Your task to perform on an android device: open app "Skype" Image 0: 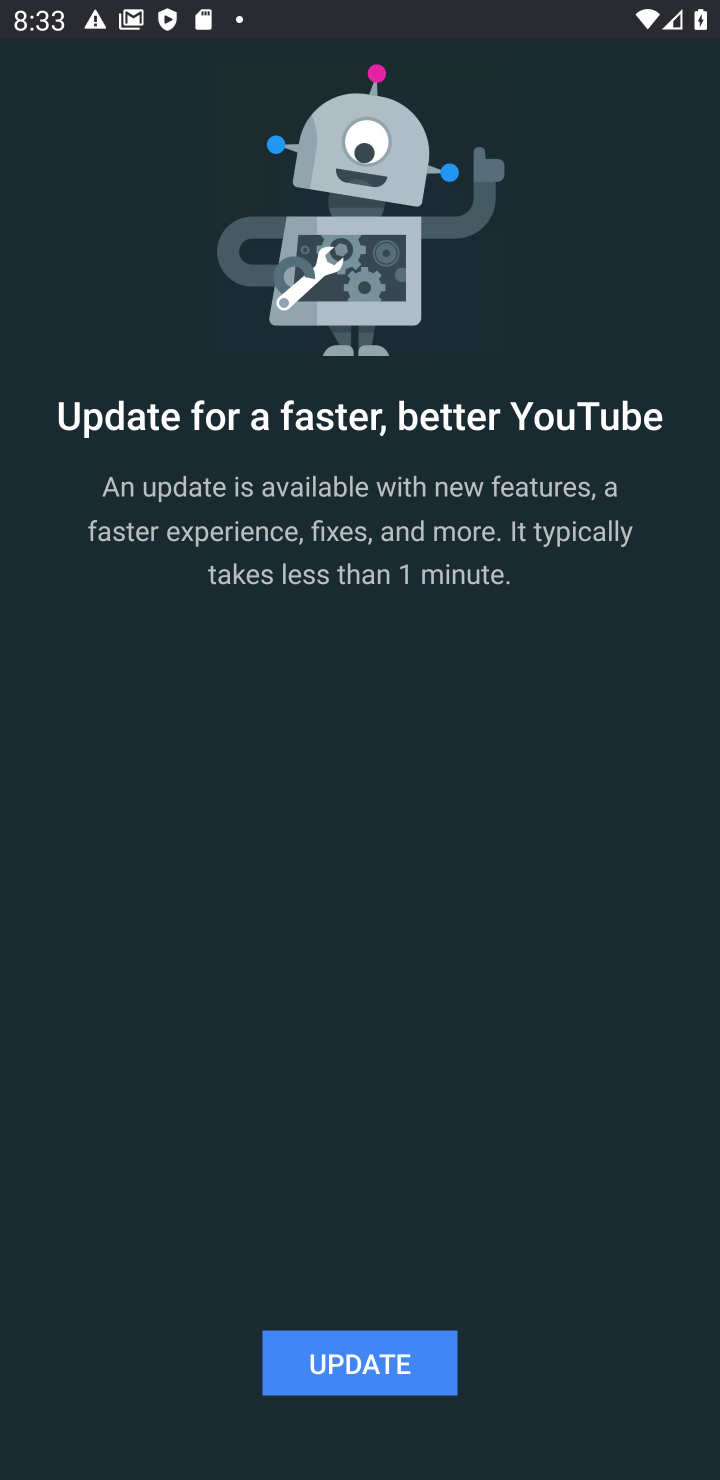
Step 0: press home button
Your task to perform on an android device: open app "Skype" Image 1: 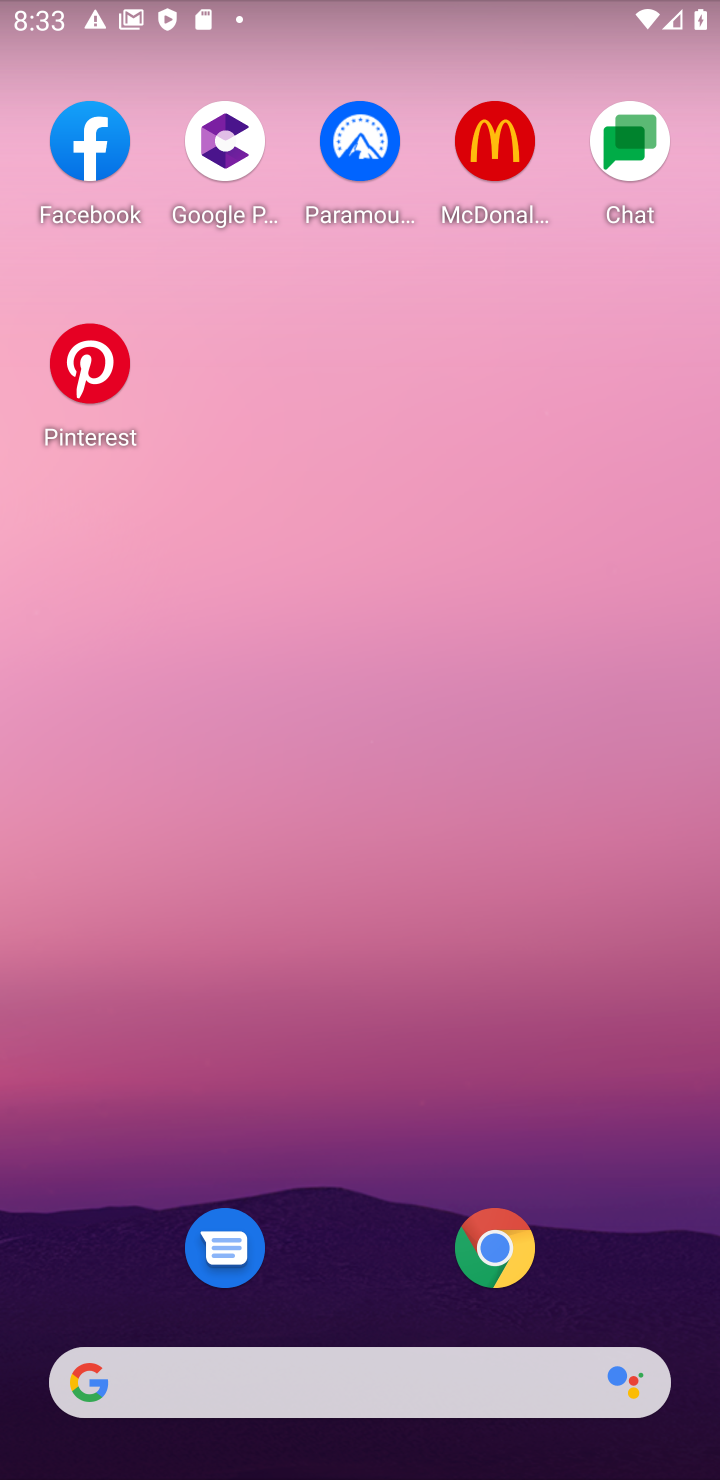
Step 1: drag from (338, 912) to (338, 218)
Your task to perform on an android device: open app "Skype" Image 2: 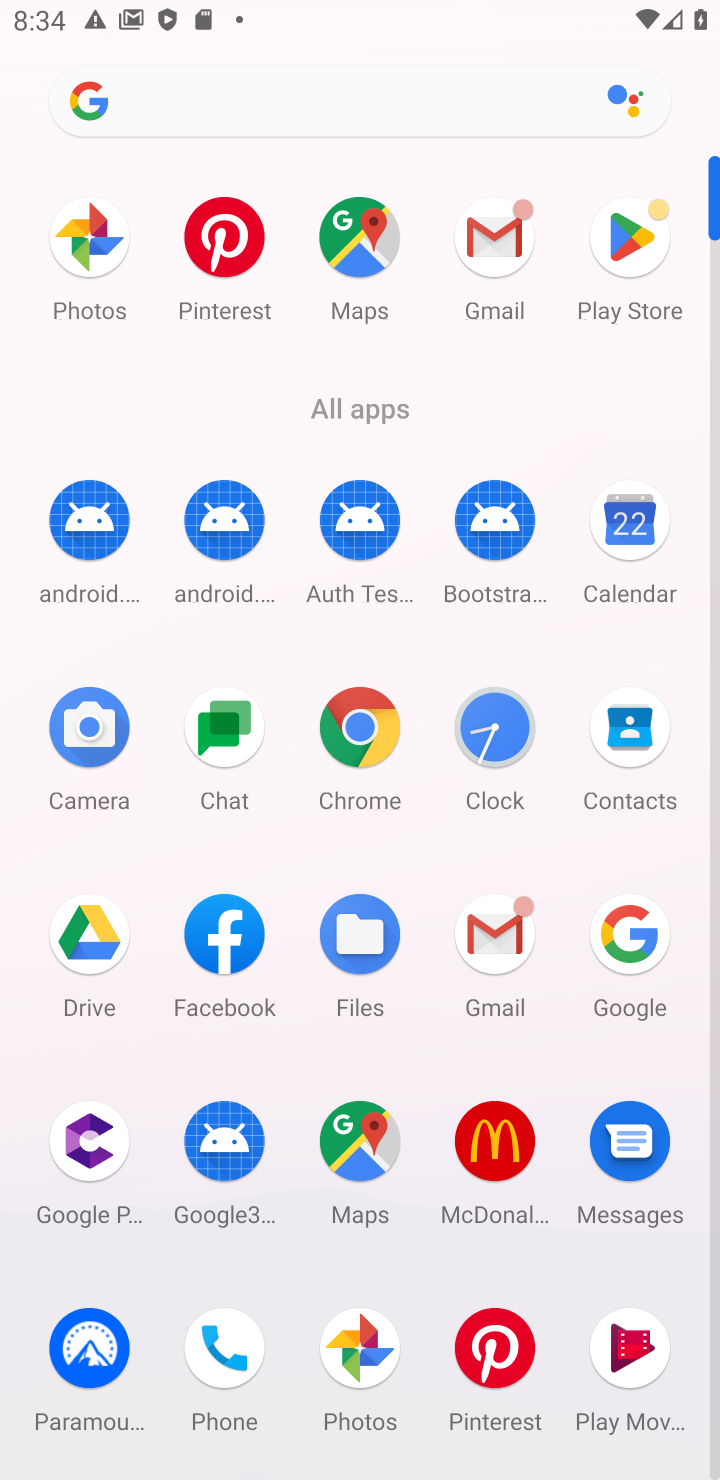
Step 2: click (634, 231)
Your task to perform on an android device: open app "Skype" Image 3: 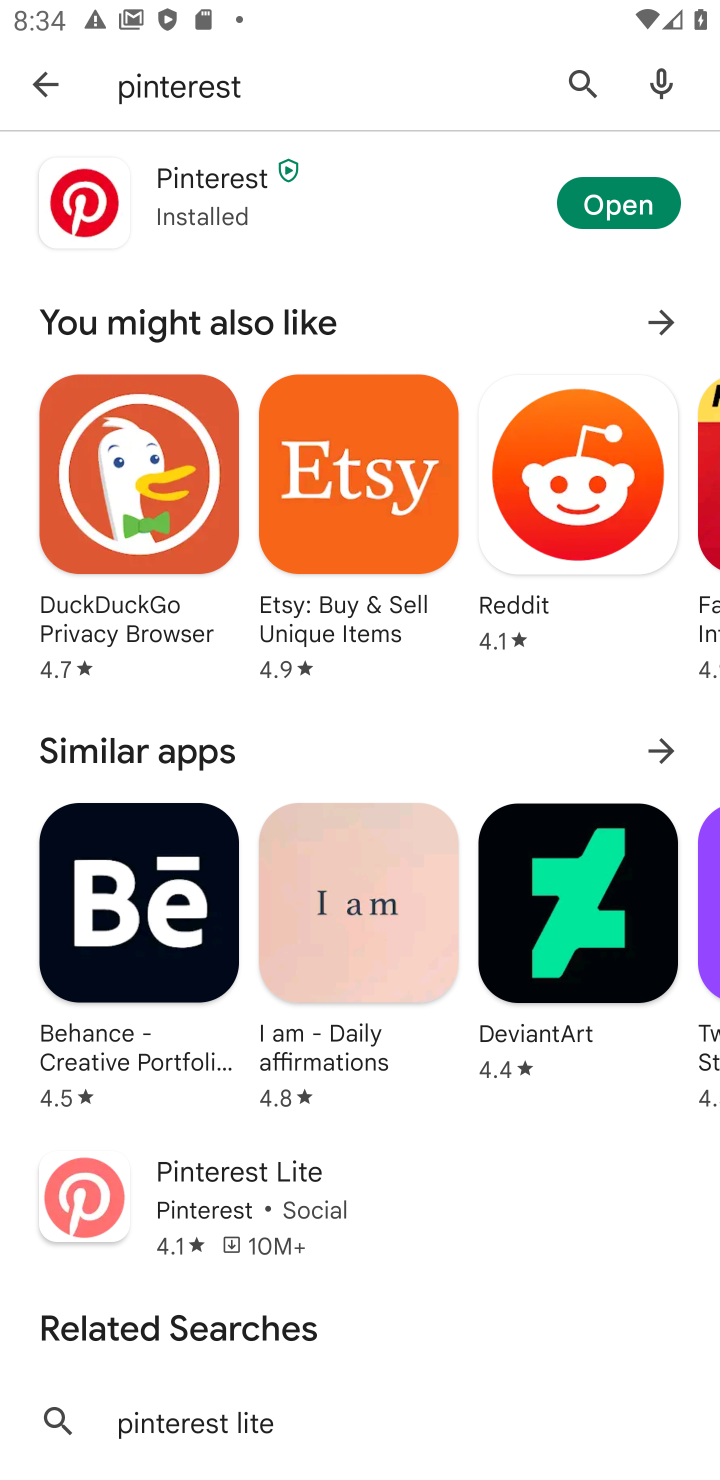
Step 3: click (580, 82)
Your task to perform on an android device: open app "Skype" Image 4: 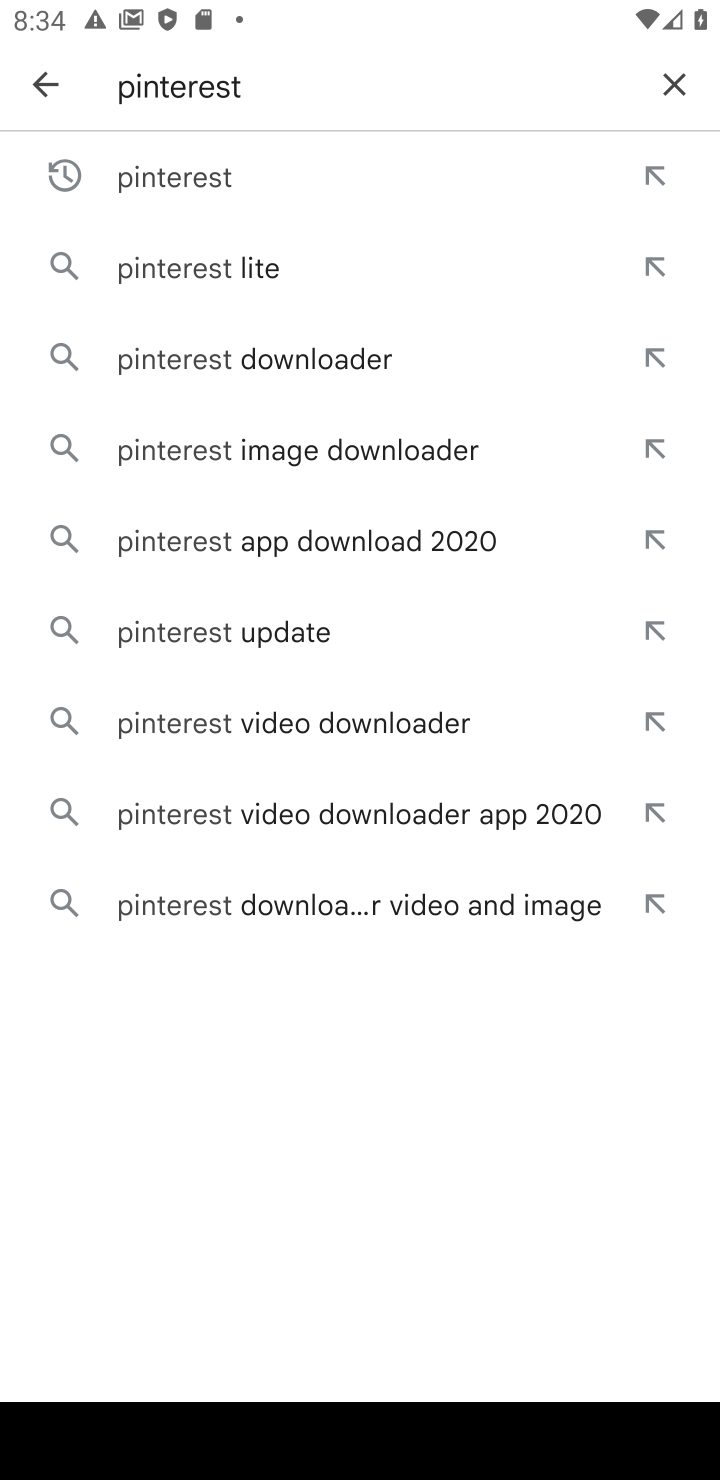
Step 4: click (673, 79)
Your task to perform on an android device: open app "Skype" Image 5: 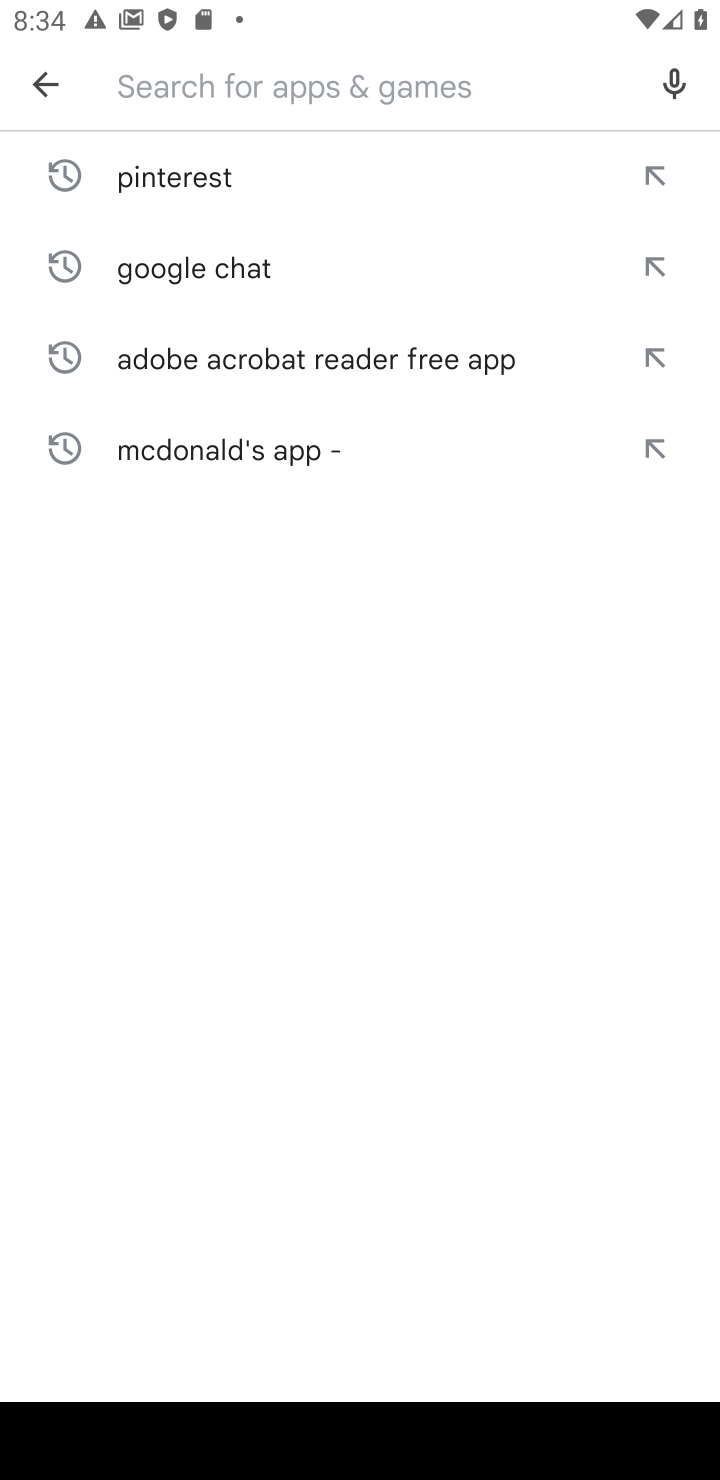
Step 5: type "Skype"
Your task to perform on an android device: open app "Skype" Image 6: 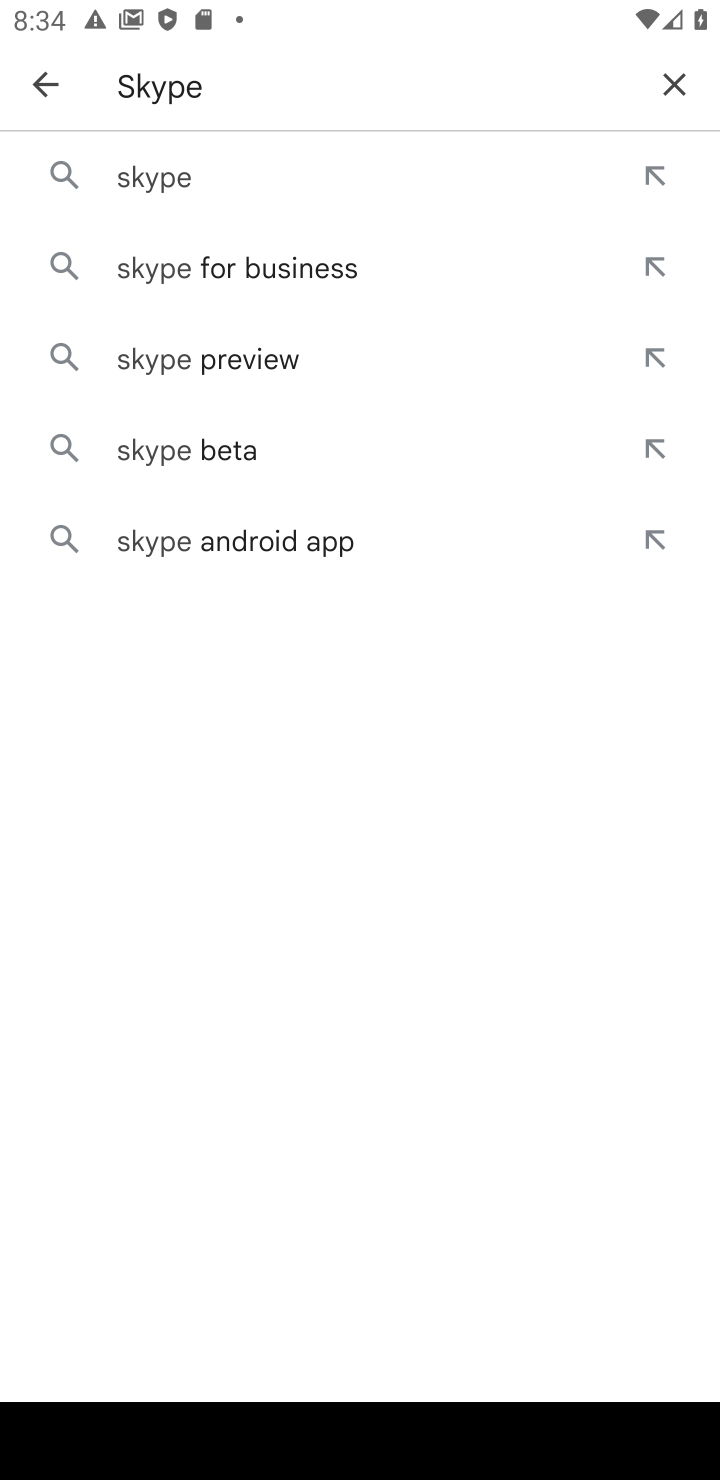
Step 6: click (143, 180)
Your task to perform on an android device: open app "Skype" Image 7: 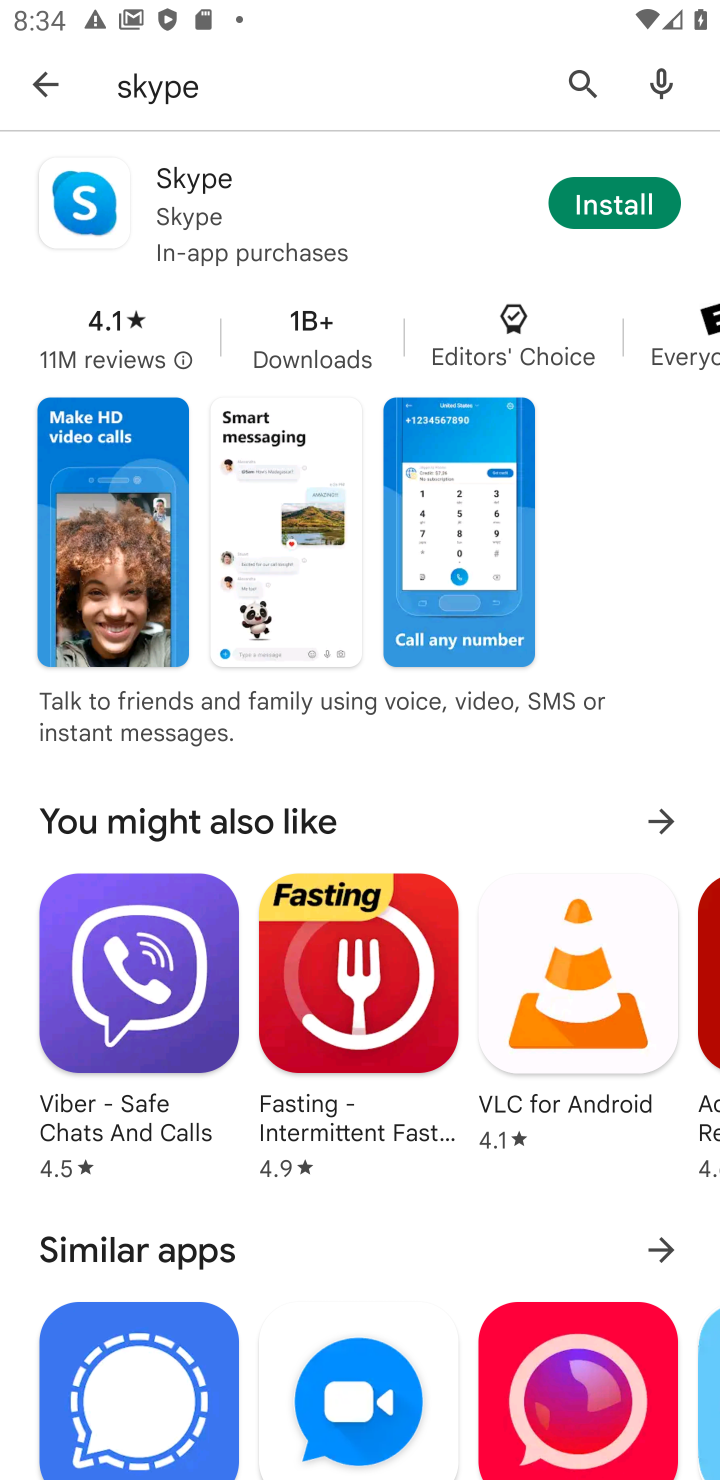
Step 7: task complete